Your task to perform on an android device: check the backup settings in the google photos Image 0: 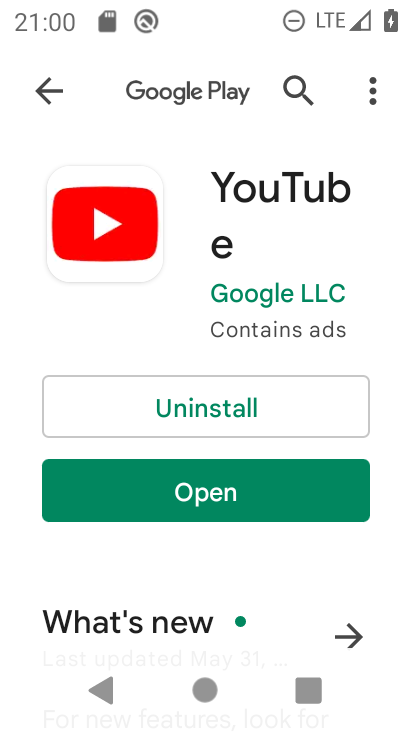
Step 0: press home button
Your task to perform on an android device: check the backup settings in the google photos Image 1: 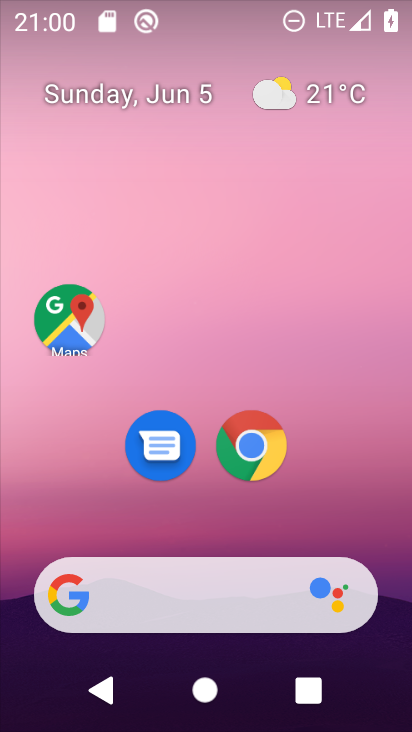
Step 1: drag from (351, 526) to (363, 118)
Your task to perform on an android device: check the backup settings in the google photos Image 2: 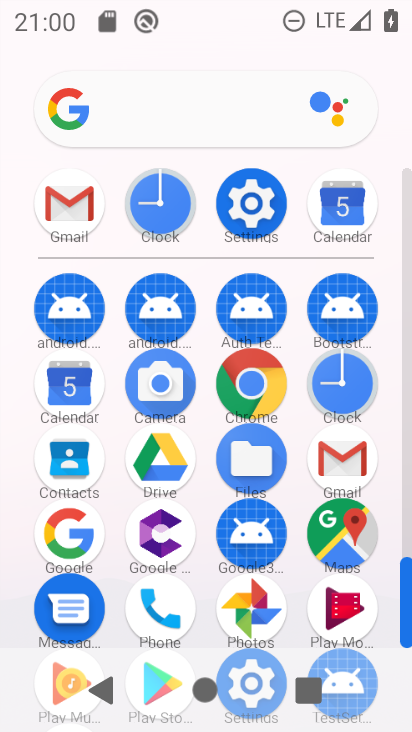
Step 2: click (243, 600)
Your task to perform on an android device: check the backup settings in the google photos Image 3: 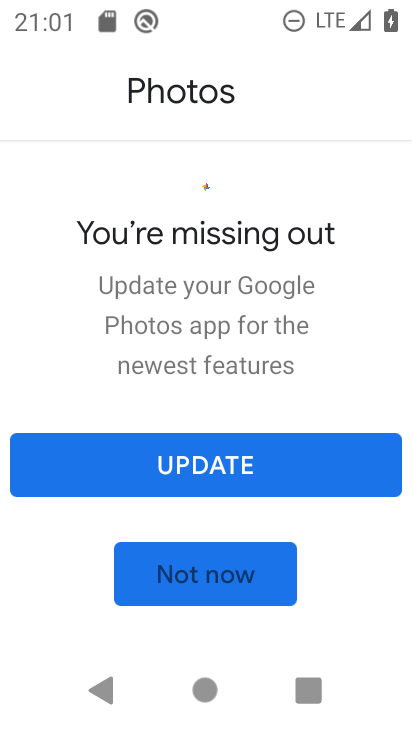
Step 3: click (194, 464)
Your task to perform on an android device: check the backup settings in the google photos Image 4: 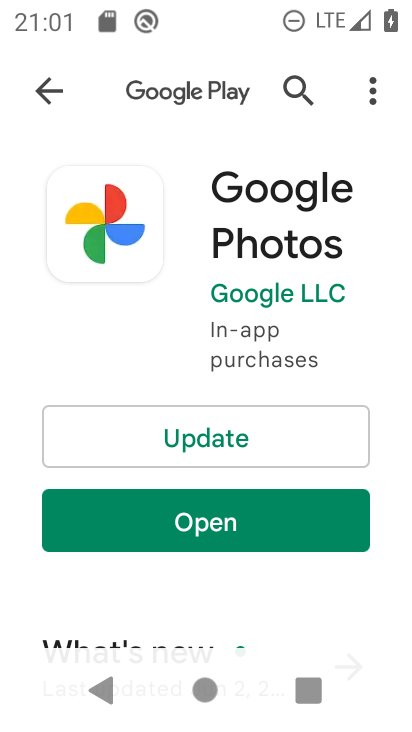
Step 4: click (215, 432)
Your task to perform on an android device: check the backup settings in the google photos Image 5: 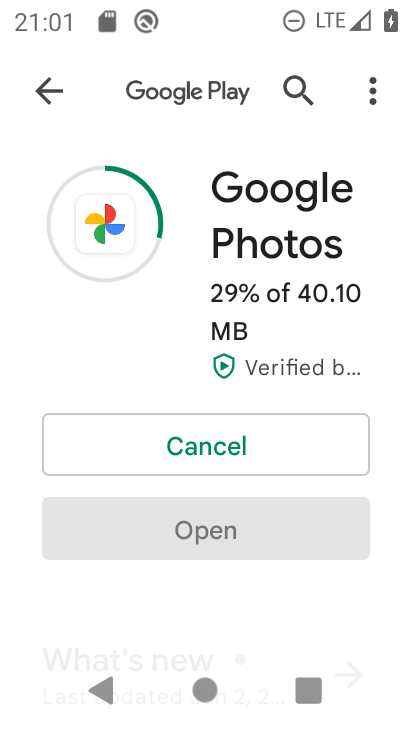
Step 5: drag from (236, 5) to (270, 44)
Your task to perform on an android device: check the backup settings in the google photos Image 6: 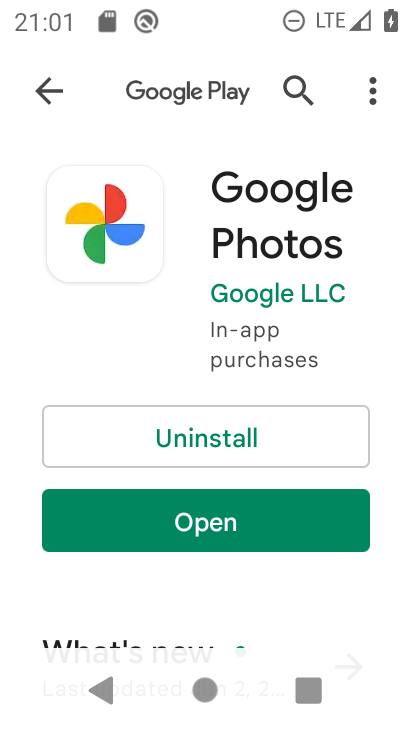
Step 6: click (233, 532)
Your task to perform on an android device: check the backup settings in the google photos Image 7: 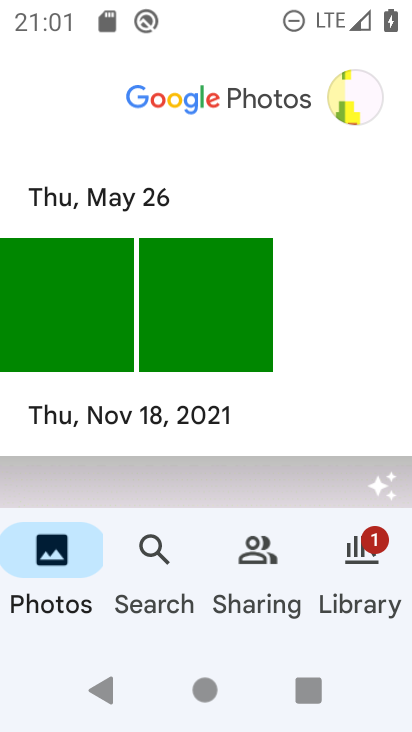
Step 7: click (341, 96)
Your task to perform on an android device: check the backup settings in the google photos Image 8: 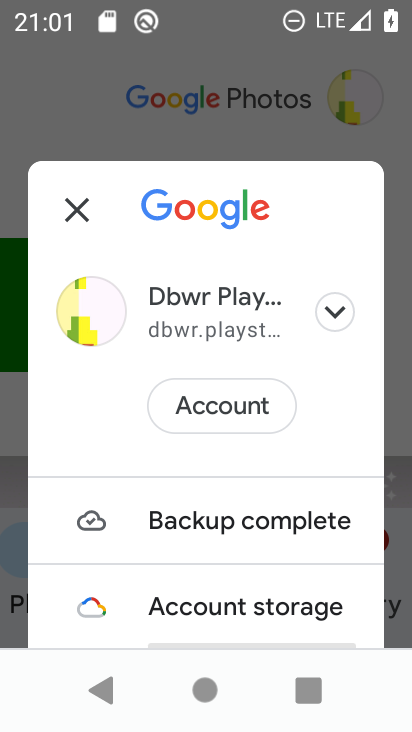
Step 8: drag from (106, 623) to (161, 107)
Your task to perform on an android device: check the backup settings in the google photos Image 9: 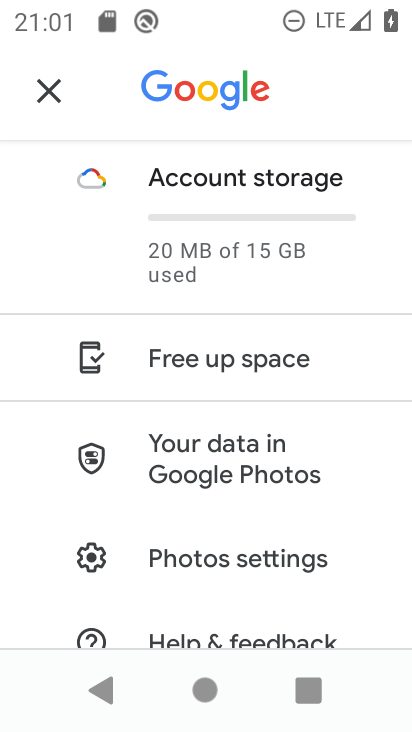
Step 9: drag from (109, 600) to (199, 299)
Your task to perform on an android device: check the backup settings in the google photos Image 10: 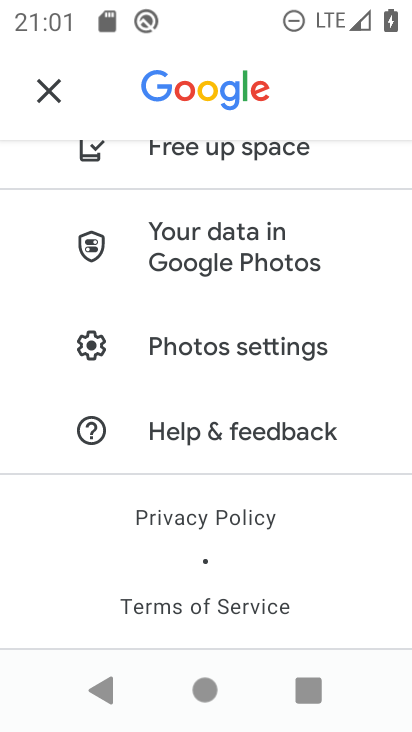
Step 10: click (212, 363)
Your task to perform on an android device: check the backup settings in the google photos Image 11: 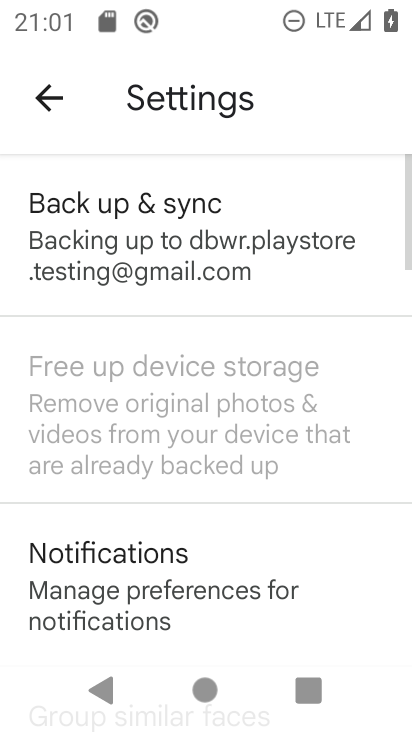
Step 11: click (206, 250)
Your task to perform on an android device: check the backup settings in the google photos Image 12: 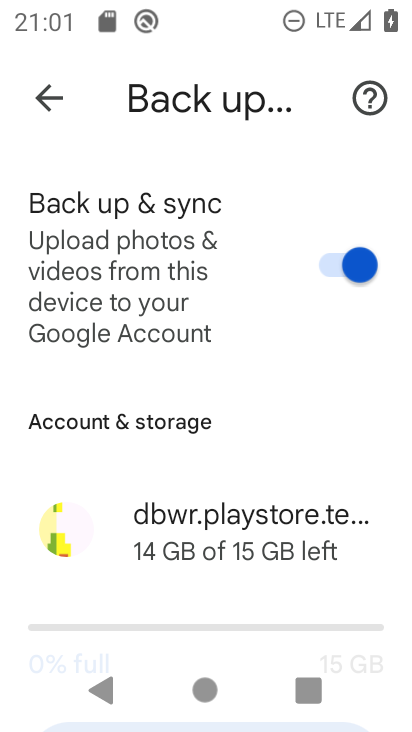
Step 12: task complete